Your task to perform on an android device: Open the Play Movies app and select the watchlist tab. Image 0: 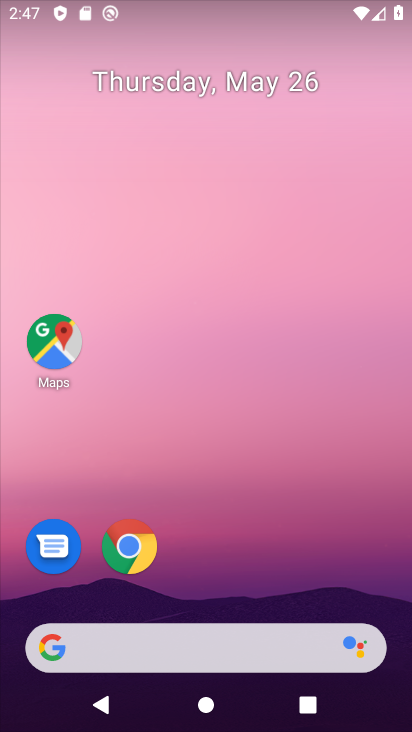
Step 0: drag from (256, 306) to (220, 0)
Your task to perform on an android device: Open the Play Movies app and select the watchlist tab. Image 1: 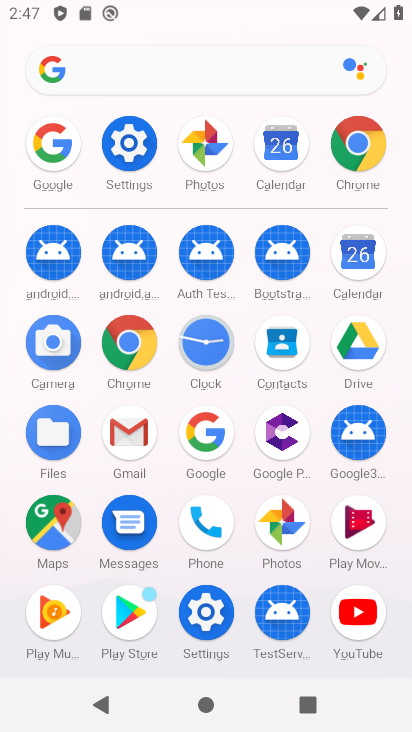
Step 1: click (364, 509)
Your task to perform on an android device: Open the Play Movies app and select the watchlist tab. Image 2: 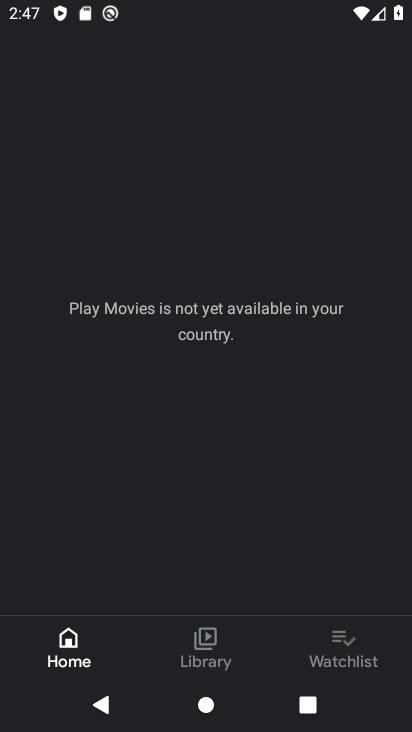
Step 2: click (349, 653)
Your task to perform on an android device: Open the Play Movies app and select the watchlist tab. Image 3: 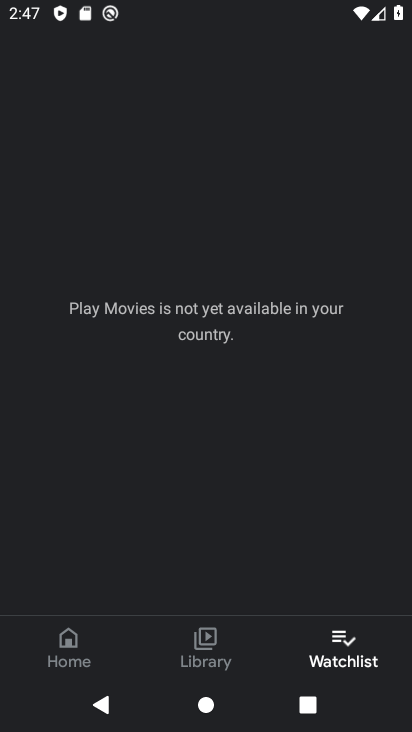
Step 3: task complete